Your task to perform on an android device: check battery use Image 0: 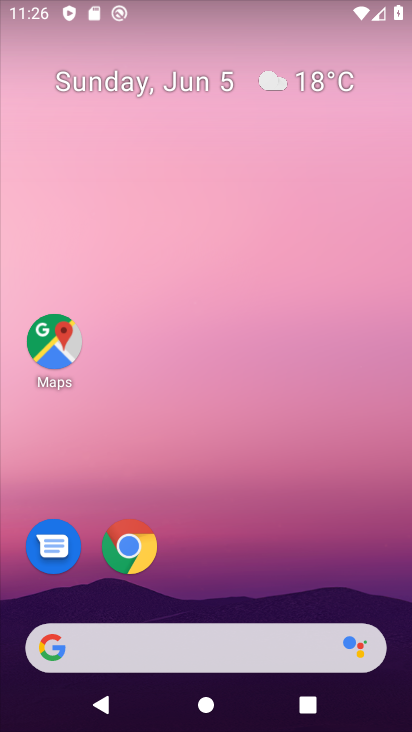
Step 0: drag from (244, 530) to (266, 91)
Your task to perform on an android device: check battery use Image 1: 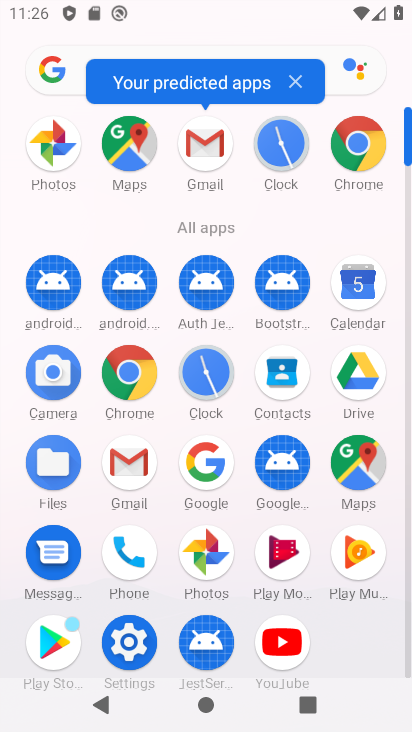
Step 1: click (127, 636)
Your task to perform on an android device: check battery use Image 2: 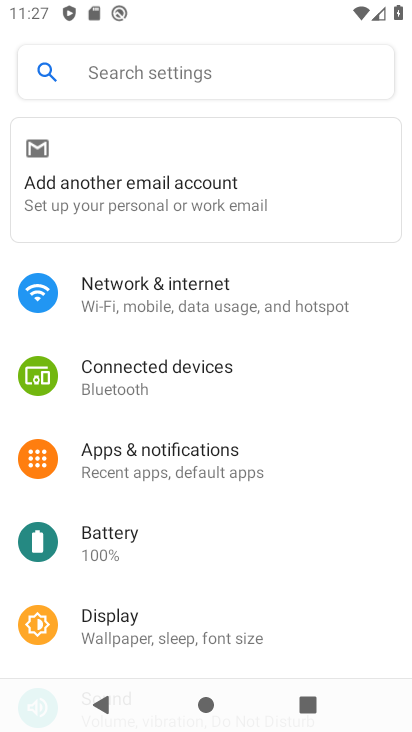
Step 2: click (160, 556)
Your task to perform on an android device: check battery use Image 3: 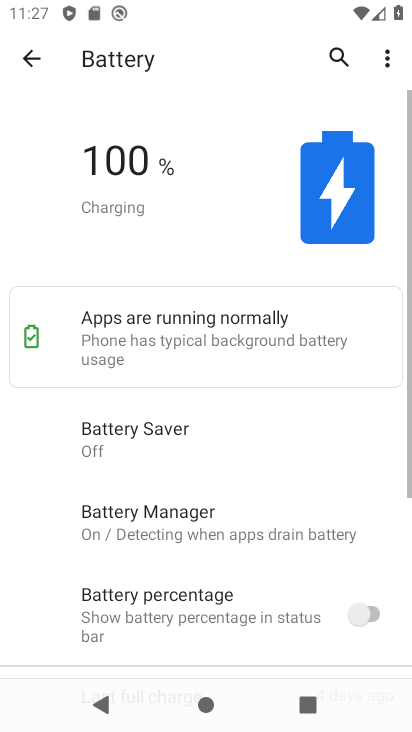
Step 3: click (382, 56)
Your task to perform on an android device: check battery use Image 4: 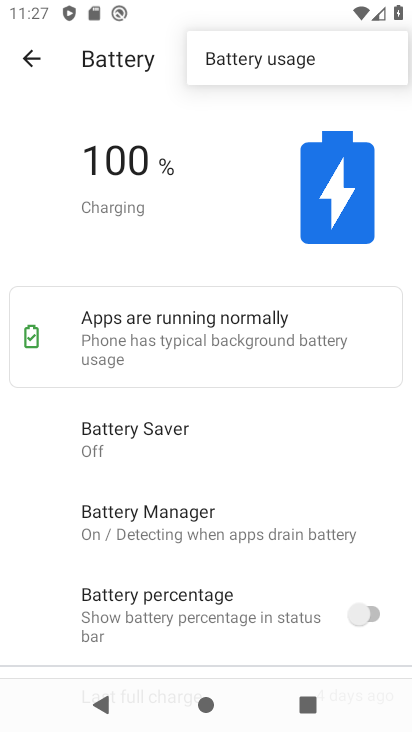
Step 4: click (203, 58)
Your task to perform on an android device: check battery use Image 5: 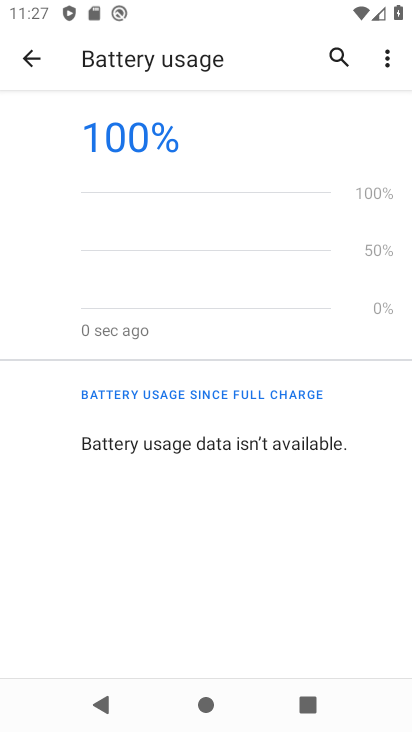
Step 5: task complete